Your task to perform on an android device: Open notification settings Image 0: 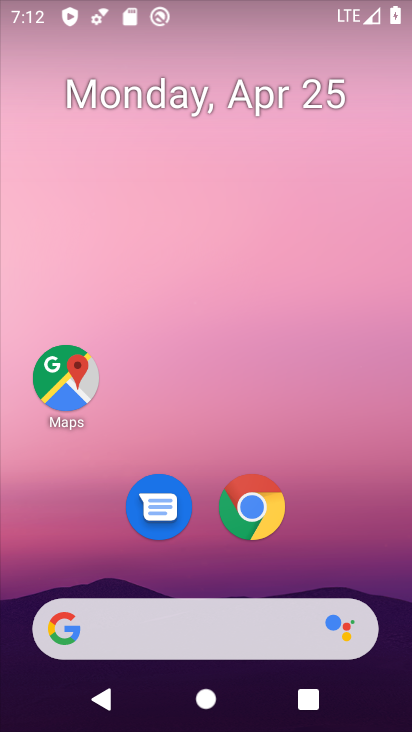
Step 0: click (364, 395)
Your task to perform on an android device: Open notification settings Image 1: 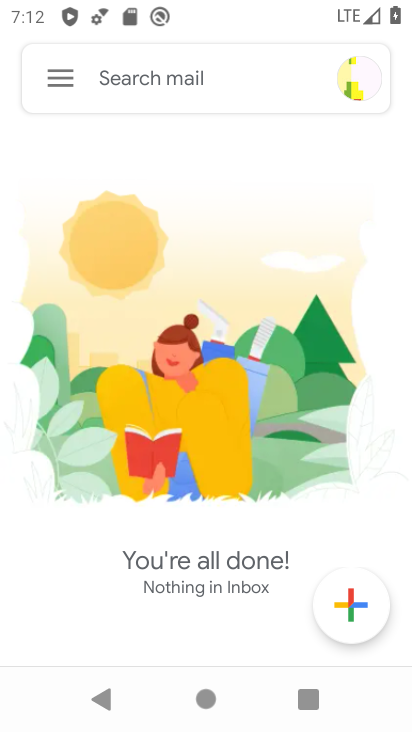
Step 1: press home button
Your task to perform on an android device: Open notification settings Image 2: 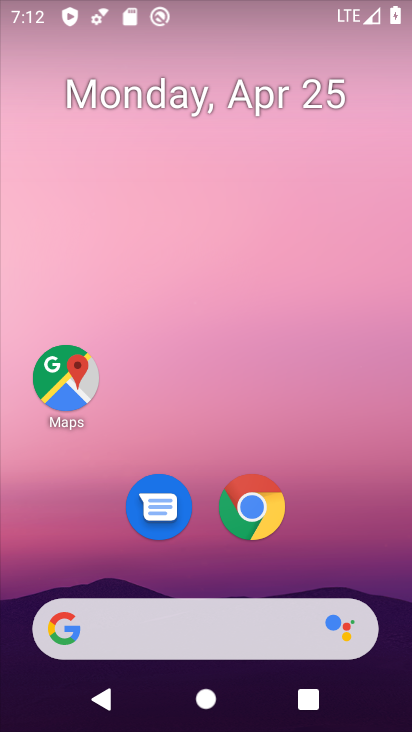
Step 2: drag from (328, 539) to (317, 147)
Your task to perform on an android device: Open notification settings Image 3: 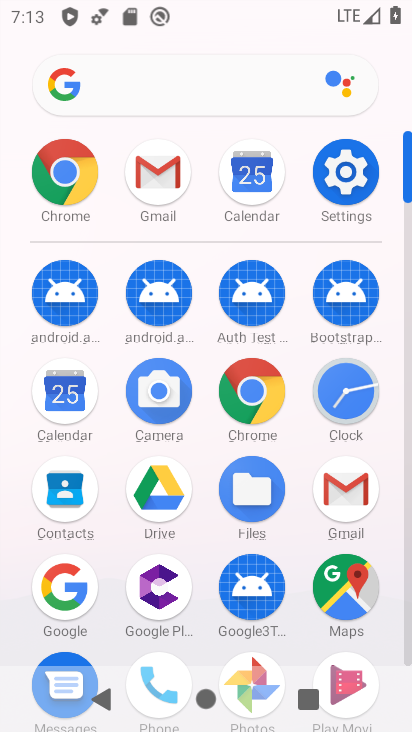
Step 3: click (317, 184)
Your task to perform on an android device: Open notification settings Image 4: 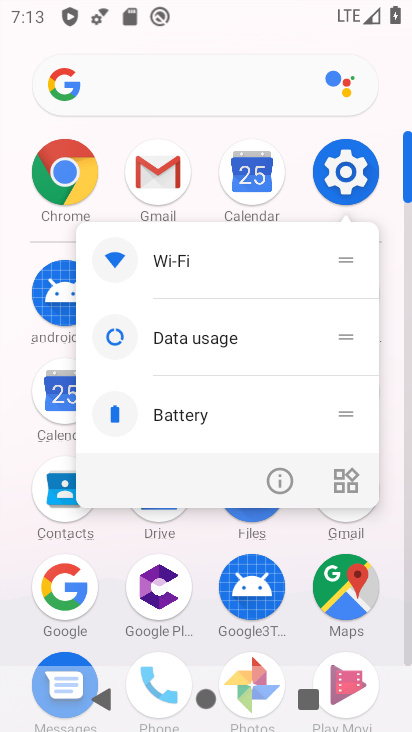
Step 4: click (317, 184)
Your task to perform on an android device: Open notification settings Image 5: 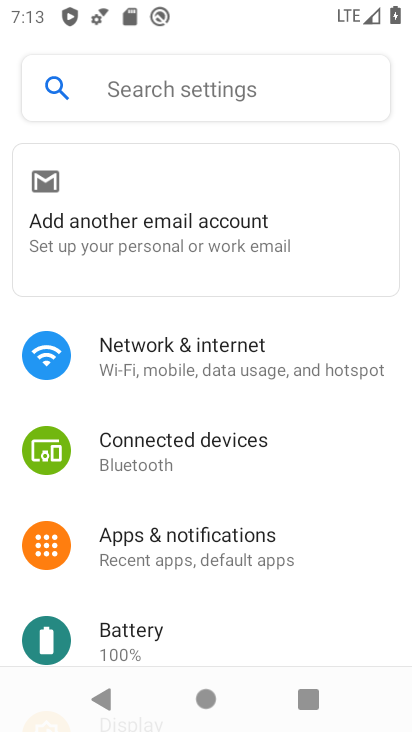
Step 5: click (229, 532)
Your task to perform on an android device: Open notification settings Image 6: 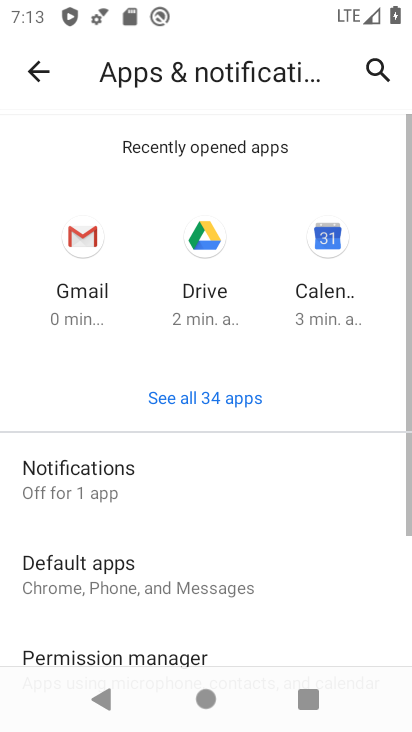
Step 6: task complete